Your task to perform on an android device: Go to Wikipedia Image 0: 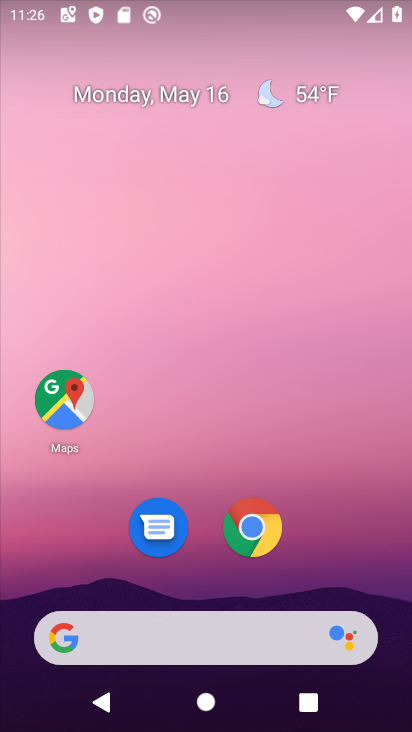
Step 0: drag from (218, 653) to (198, 325)
Your task to perform on an android device: Go to Wikipedia Image 1: 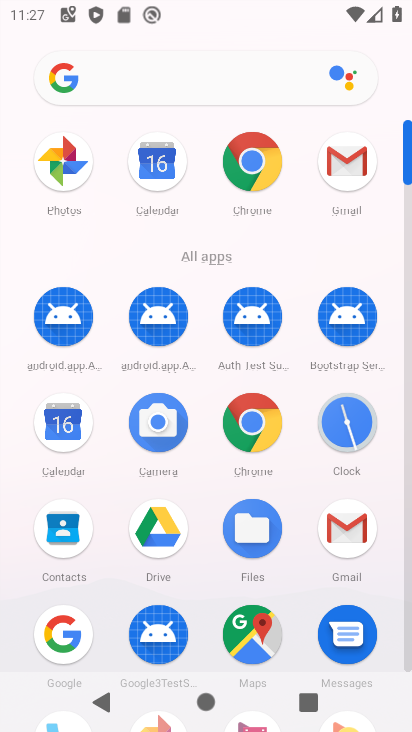
Step 1: click (239, 156)
Your task to perform on an android device: Go to Wikipedia Image 2: 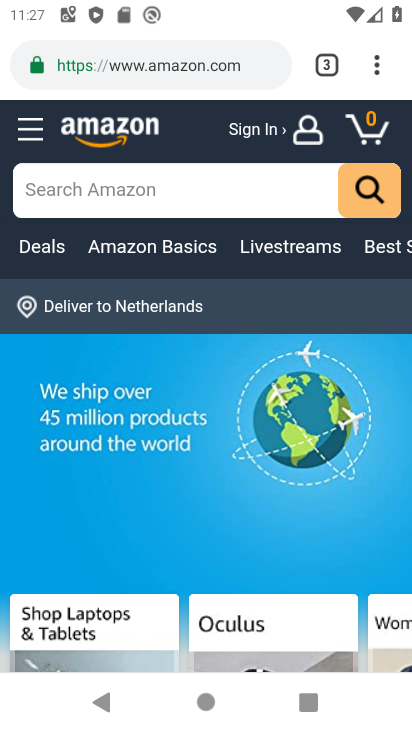
Step 2: click (183, 74)
Your task to perform on an android device: Go to Wikipedia Image 3: 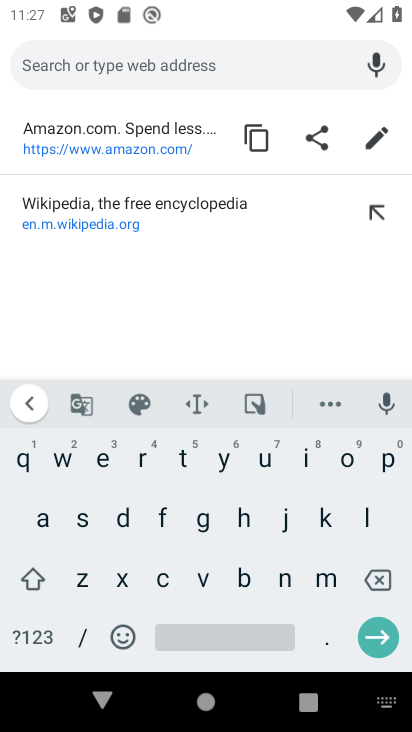
Step 3: click (60, 460)
Your task to perform on an android device: Go to Wikipedia Image 4: 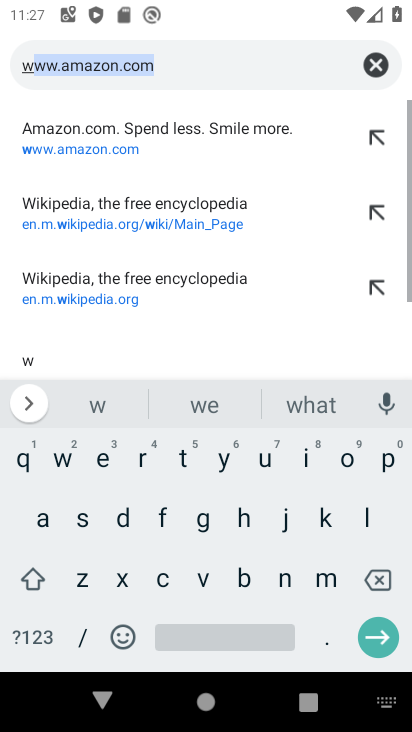
Step 4: click (311, 455)
Your task to perform on an android device: Go to Wikipedia Image 5: 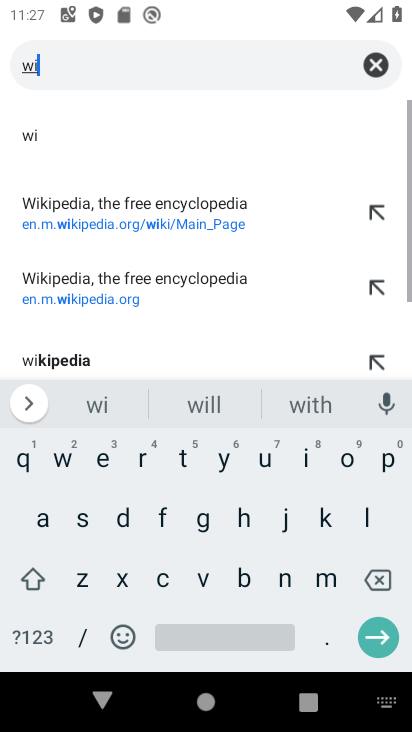
Step 5: click (141, 212)
Your task to perform on an android device: Go to Wikipedia Image 6: 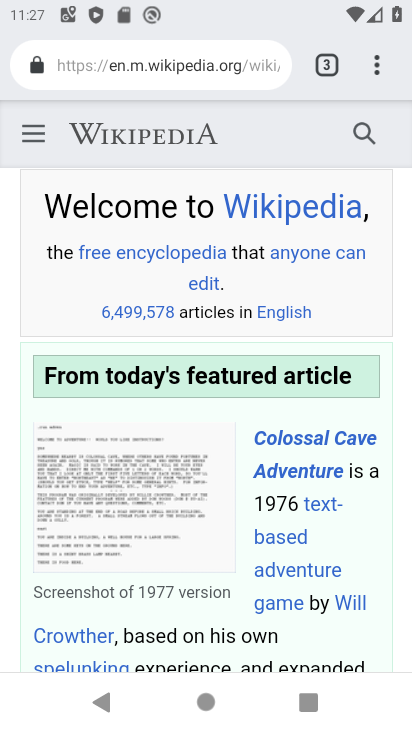
Step 6: task complete